Your task to perform on an android device: toggle airplane mode Image 0: 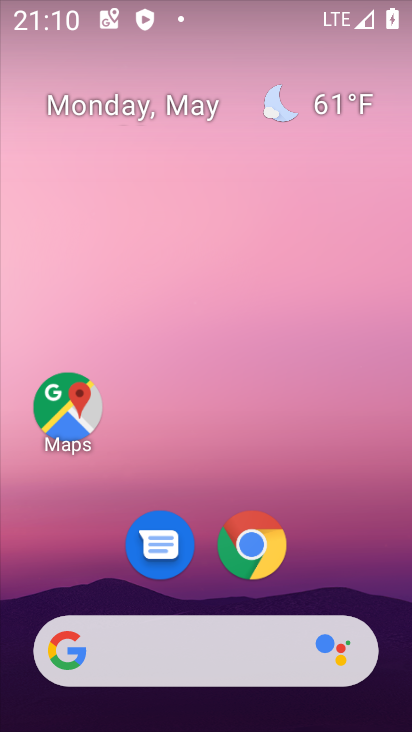
Step 0: drag from (176, 635) to (233, 23)
Your task to perform on an android device: toggle airplane mode Image 1: 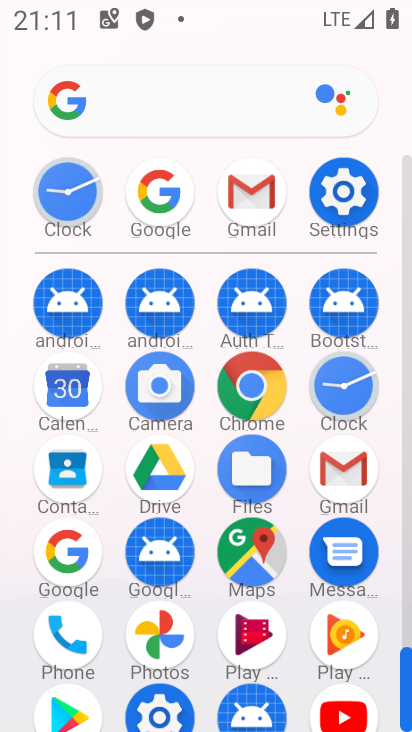
Step 1: click (337, 194)
Your task to perform on an android device: toggle airplane mode Image 2: 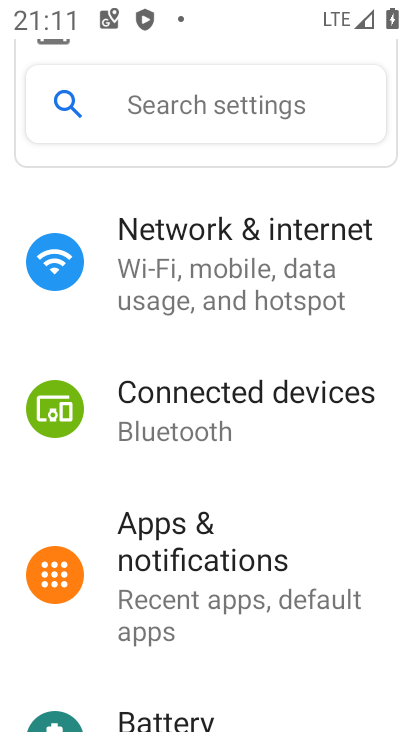
Step 2: click (138, 297)
Your task to perform on an android device: toggle airplane mode Image 3: 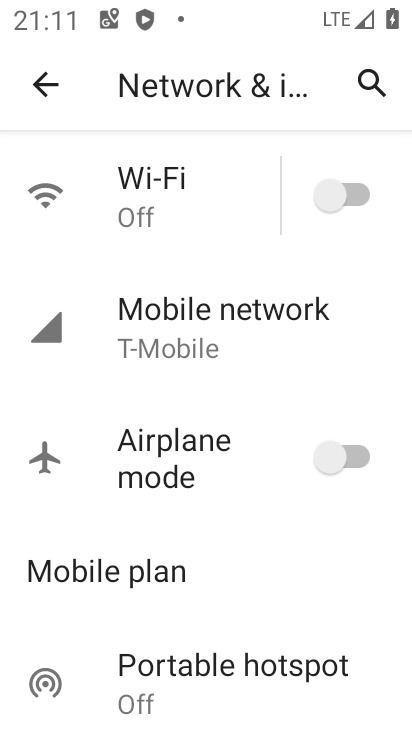
Step 3: click (335, 463)
Your task to perform on an android device: toggle airplane mode Image 4: 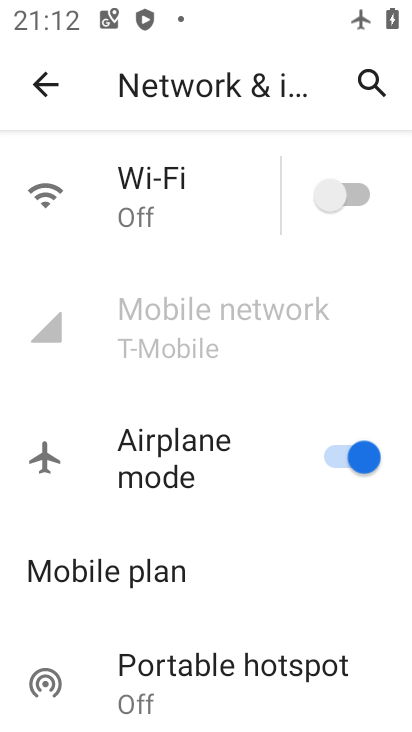
Step 4: task complete